Your task to perform on an android device: toggle notifications settings in the gmail app Image 0: 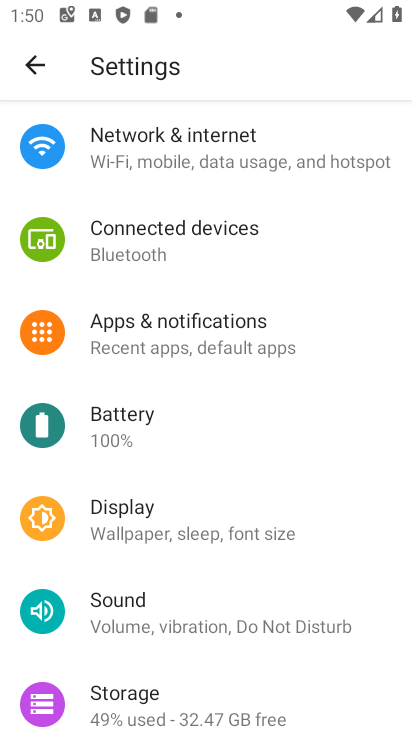
Step 0: click (175, 336)
Your task to perform on an android device: toggle notifications settings in the gmail app Image 1: 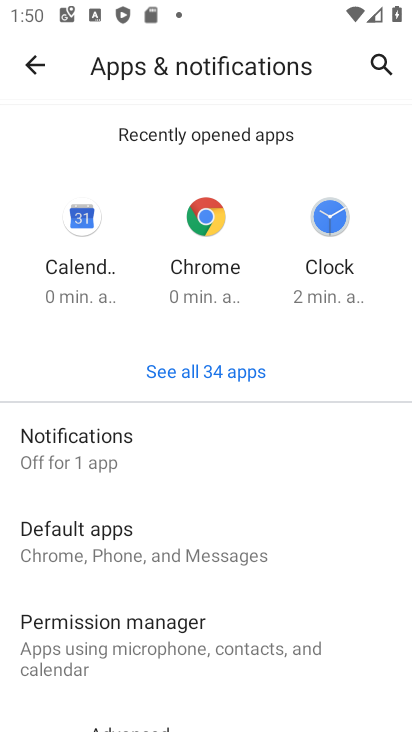
Step 1: click (117, 448)
Your task to perform on an android device: toggle notifications settings in the gmail app Image 2: 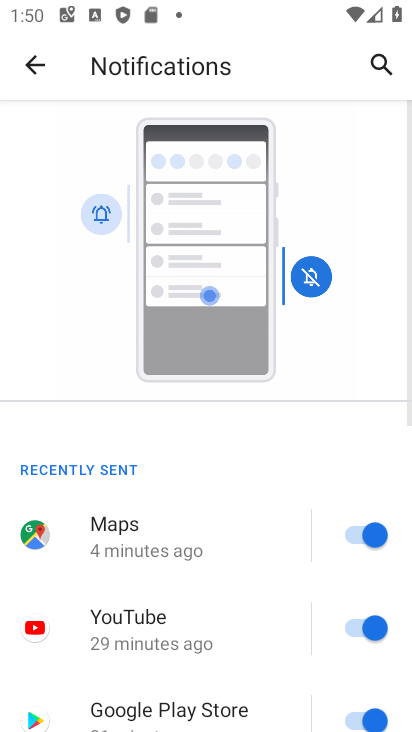
Step 2: drag from (238, 631) to (336, 3)
Your task to perform on an android device: toggle notifications settings in the gmail app Image 3: 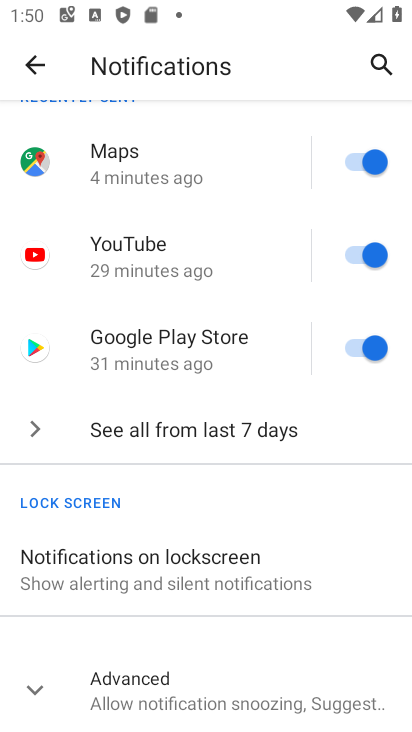
Step 3: press home button
Your task to perform on an android device: toggle notifications settings in the gmail app Image 4: 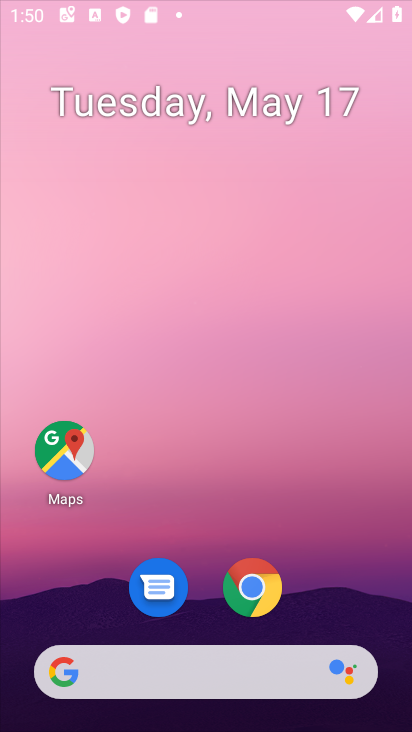
Step 4: drag from (108, 601) to (339, 161)
Your task to perform on an android device: toggle notifications settings in the gmail app Image 5: 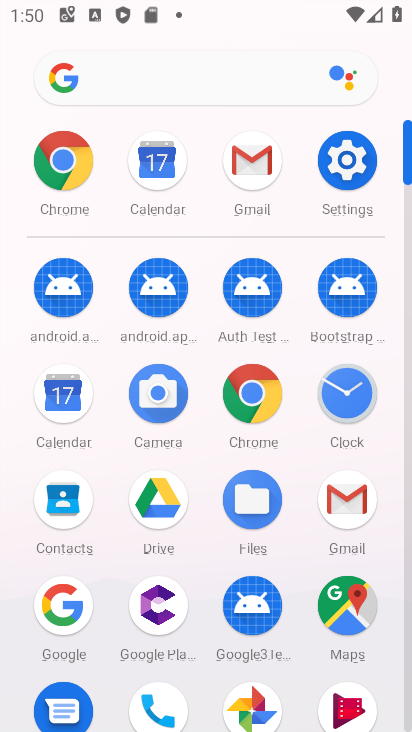
Step 5: click (337, 506)
Your task to perform on an android device: toggle notifications settings in the gmail app Image 6: 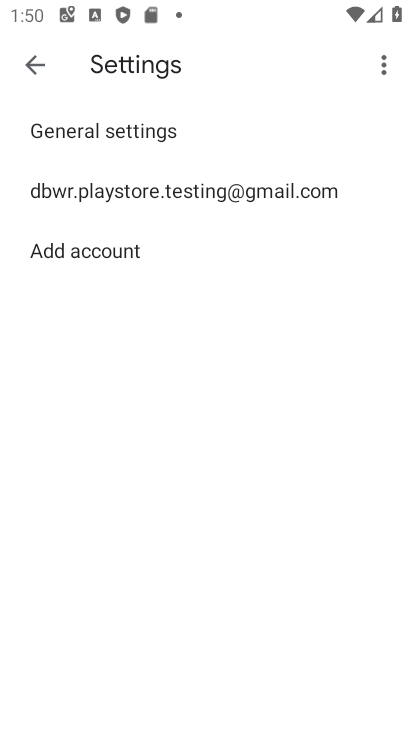
Step 6: click (170, 195)
Your task to perform on an android device: toggle notifications settings in the gmail app Image 7: 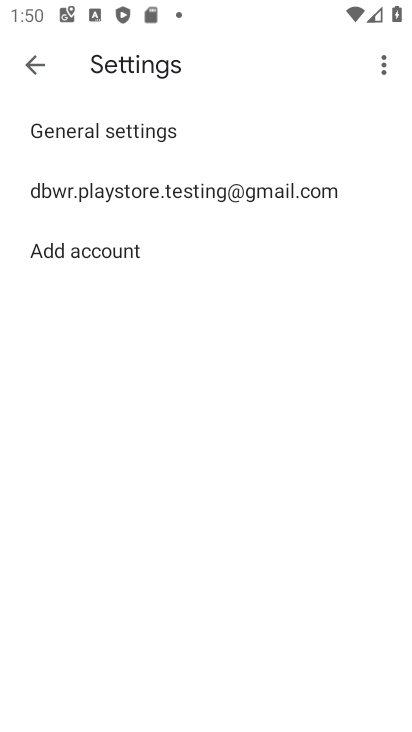
Step 7: click (170, 195)
Your task to perform on an android device: toggle notifications settings in the gmail app Image 8: 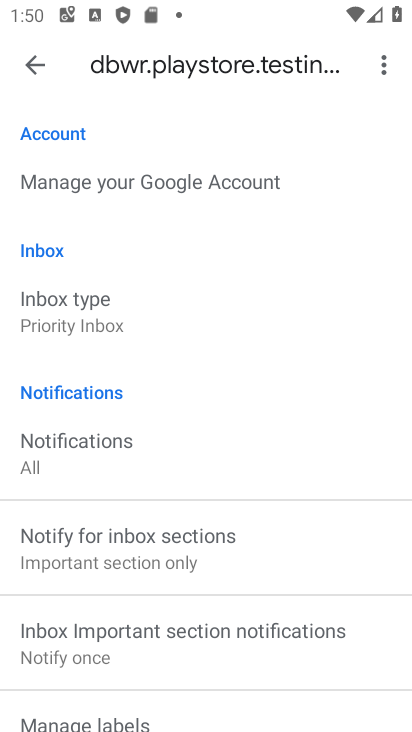
Step 8: drag from (189, 679) to (293, 200)
Your task to perform on an android device: toggle notifications settings in the gmail app Image 9: 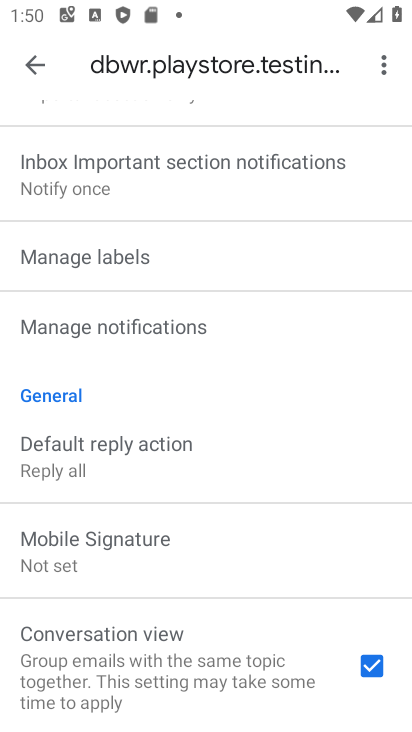
Step 9: drag from (156, 663) to (273, 151)
Your task to perform on an android device: toggle notifications settings in the gmail app Image 10: 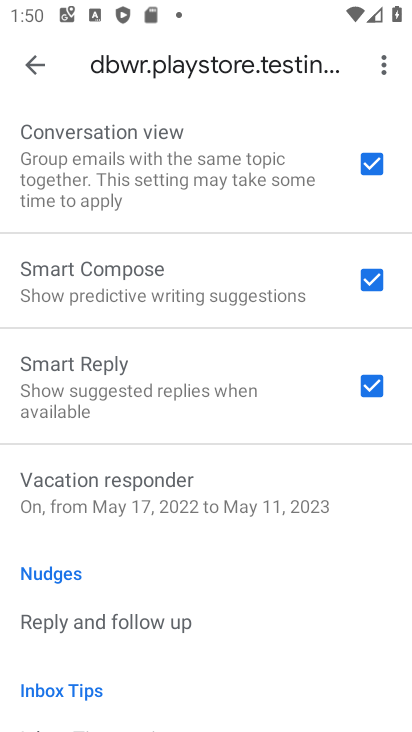
Step 10: drag from (259, 205) to (235, 531)
Your task to perform on an android device: toggle notifications settings in the gmail app Image 11: 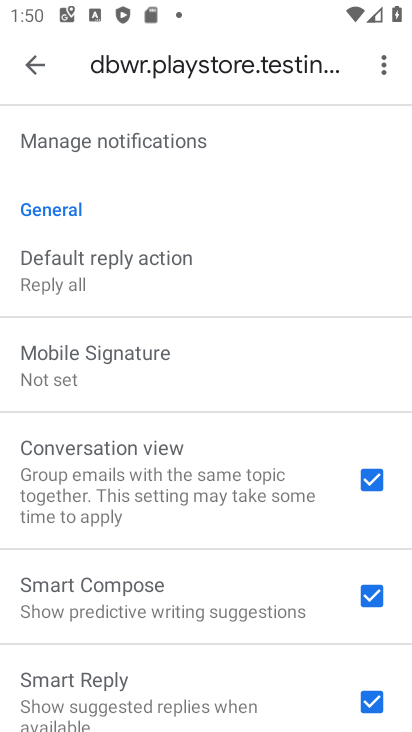
Step 11: click (145, 138)
Your task to perform on an android device: toggle notifications settings in the gmail app Image 12: 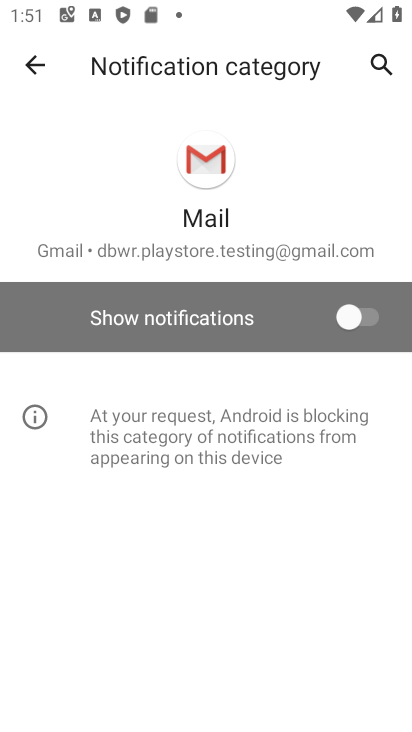
Step 12: click (333, 298)
Your task to perform on an android device: toggle notifications settings in the gmail app Image 13: 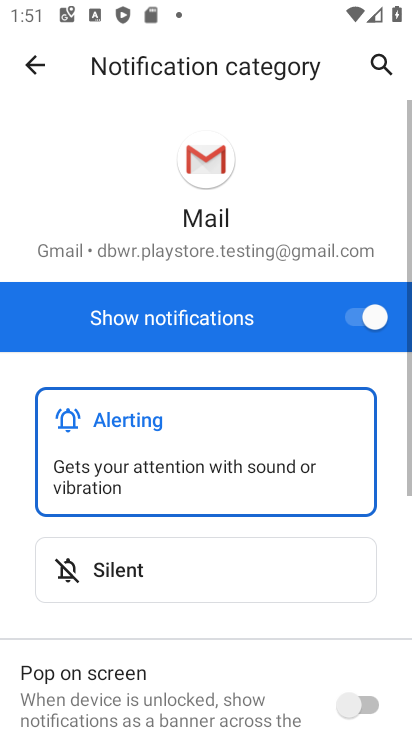
Step 13: task complete